Your task to perform on an android device: Check the weather Image 0: 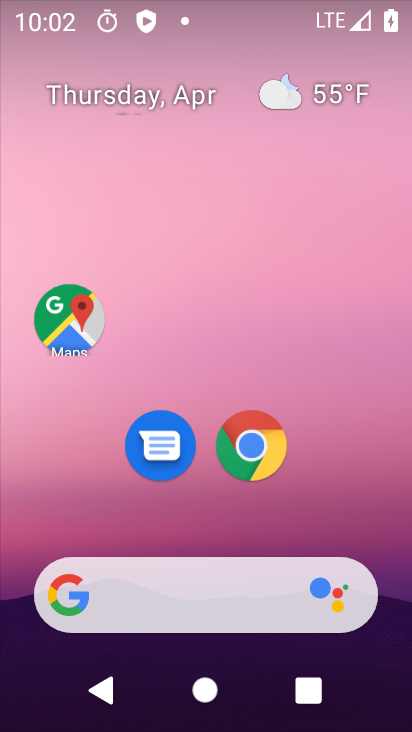
Step 0: click (304, 97)
Your task to perform on an android device: Check the weather Image 1: 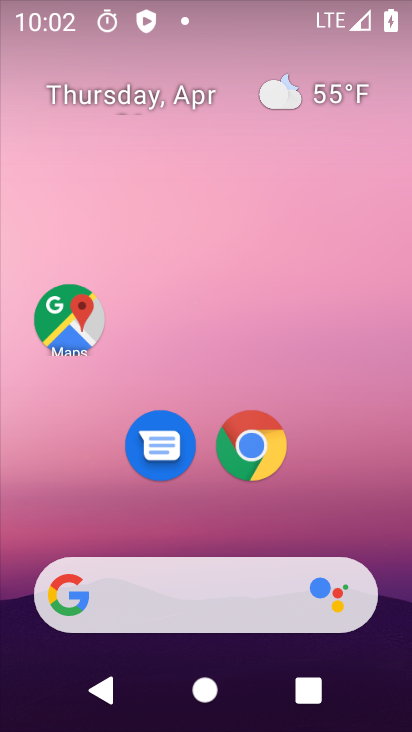
Step 1: click (333, 90)
Your task to perform on an android device: Check the weather Image 2: 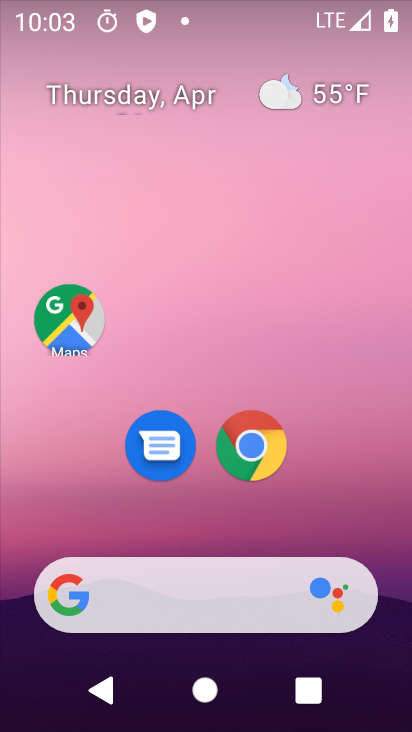
Step 2: click (263, 79)
Your task to perform on an android device: Check the weather Image 3: 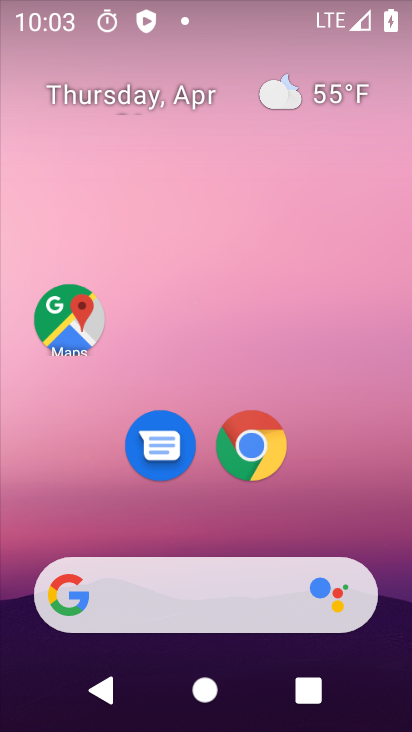
Step 3: click (282, 100)
Your task to perform on an android device: Check the weather Image 4: 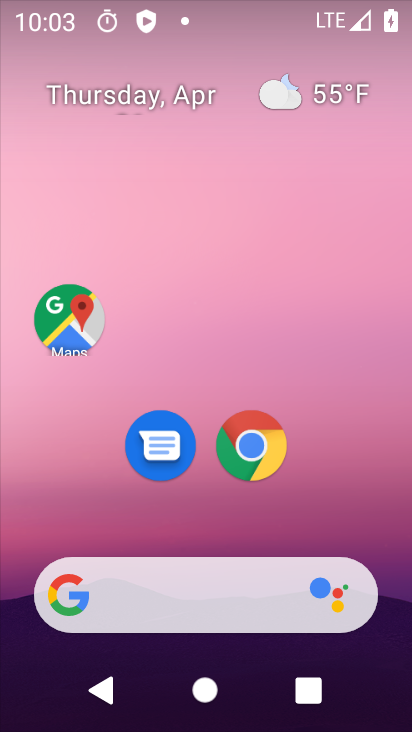
Step 4: drag from (28, 224) to (405, 212)
Your task to perform on an android device: Check the weather Image 5: 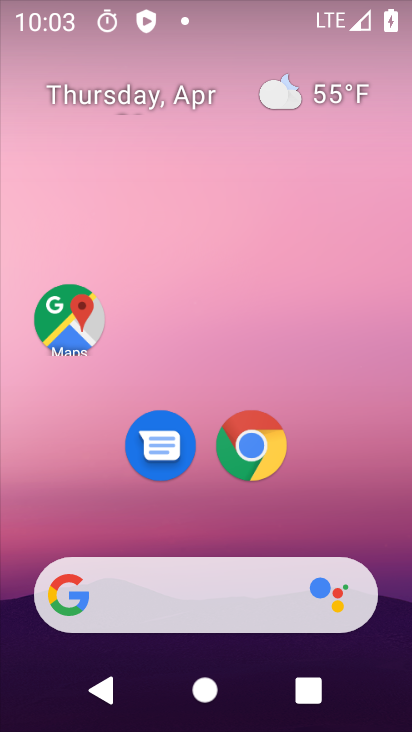
Step 5: drag from (12, 183) to (410, 226)
Your task to perform on an android device: Check the weather Image 6: 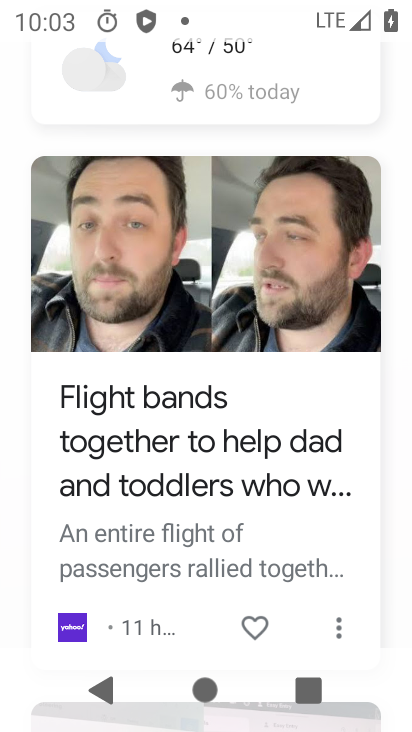
Step 6: click (192, 52)
Your task to perform on an android device: Check the weather Image 7: 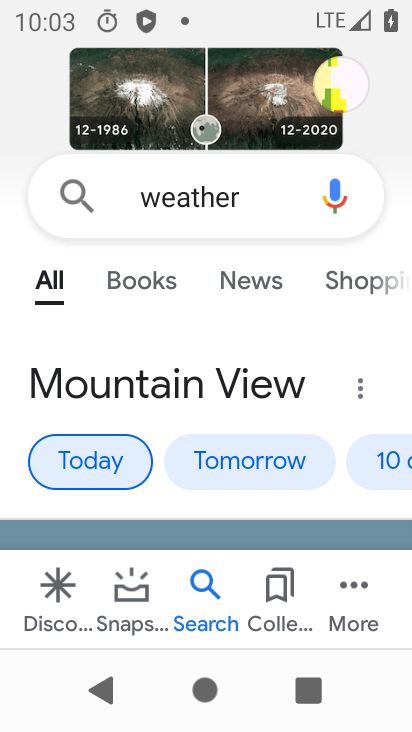
Step 7: task complete